Your task to perform on an android device: turn on airplane mode Image 0: 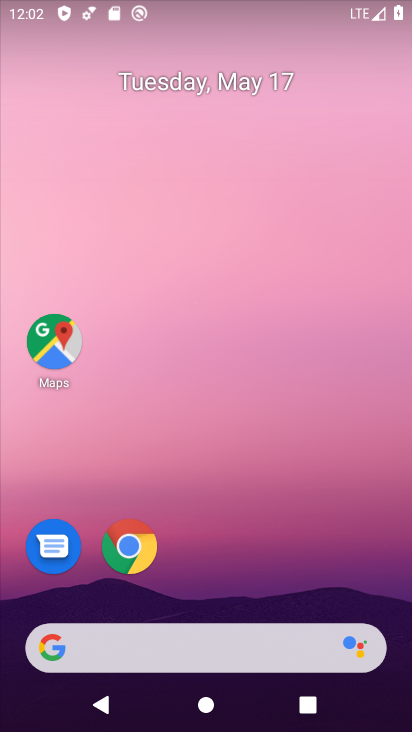
Step 0: drag from (391, 630) to (375, 105)
Your task to perform on an android device: turn on airplane mode Image 1: 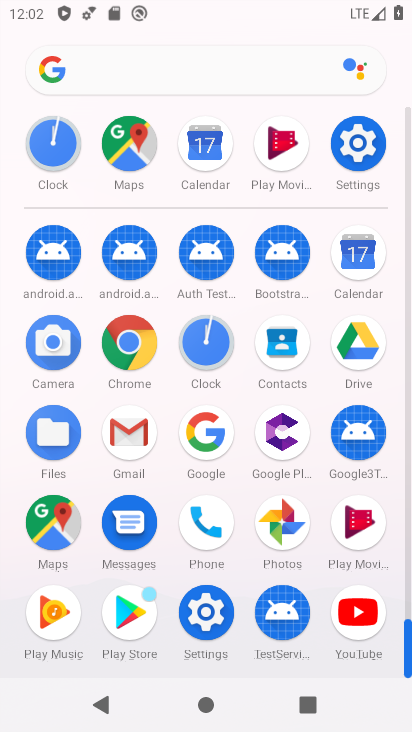
Step 1: click (207, 612)
Your task to perform on an android device: turn on airplane mode Image 2: 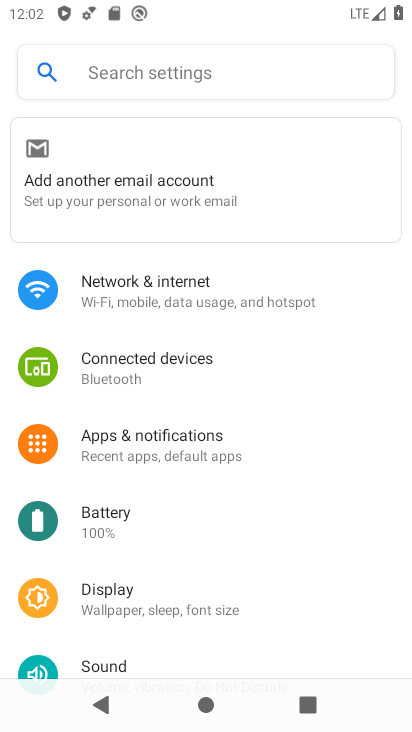
Step 2: click (144, 285)
Your task to perform on an android device: turn on airplane mode Image 3: 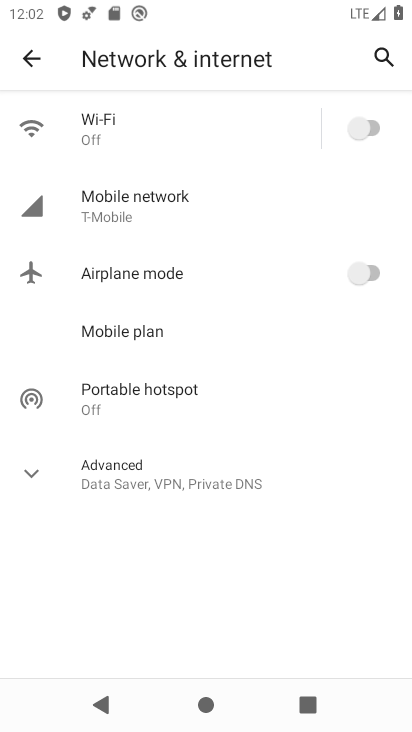
Step 3: click (369, 272)
Your task to perform on an android device: turn on airplane mode Image 4: 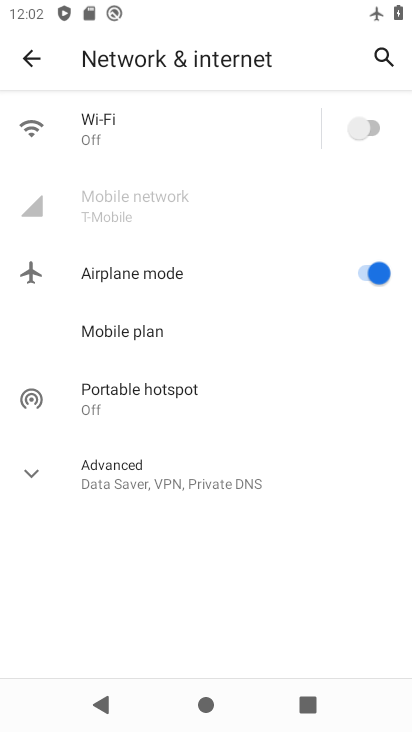
Step 4: task complete